Your task to perform on an android device: search for starred emails in the gmail app Image 0: 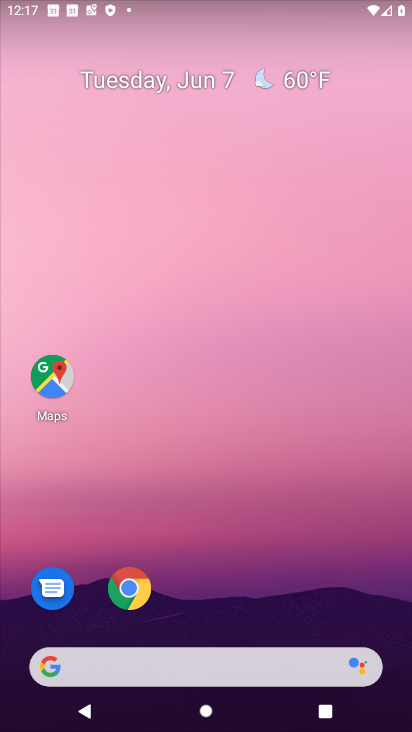
Step 0: drag from (156, 607) to (152, 60)
Your task to perform on an android device: search for starred emails in the gmail app Image 1: 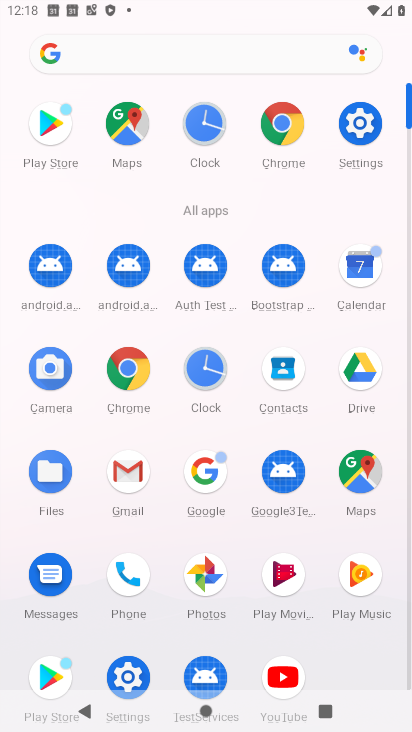
Step 1: click (132, 471)
Your task to perform on an android device: search for starred emails in the gmail app Image 2: 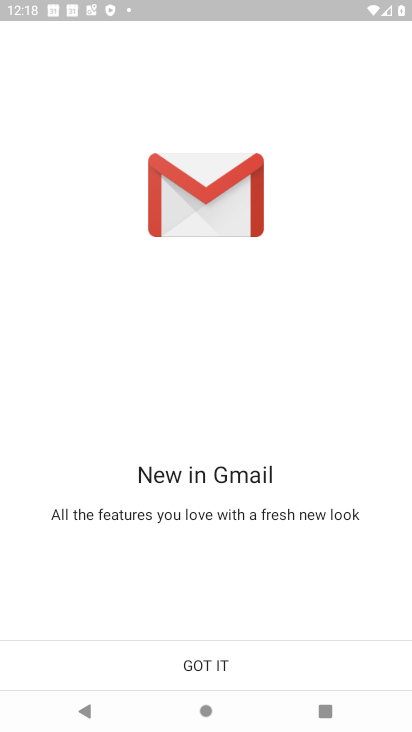
Step 2: click (173, 664)
Your task to perform on an android device: search for starred emails in the gmail app Image 3: 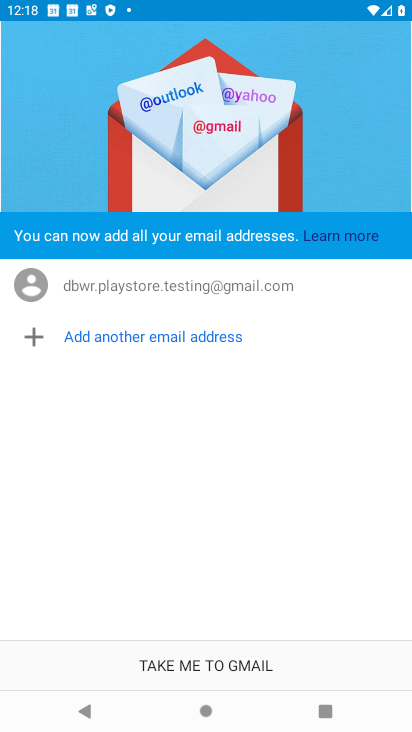
Step 3: click (173, 664)
Your task to perform on an android device: search for starred emails in the gmail app Image 4: 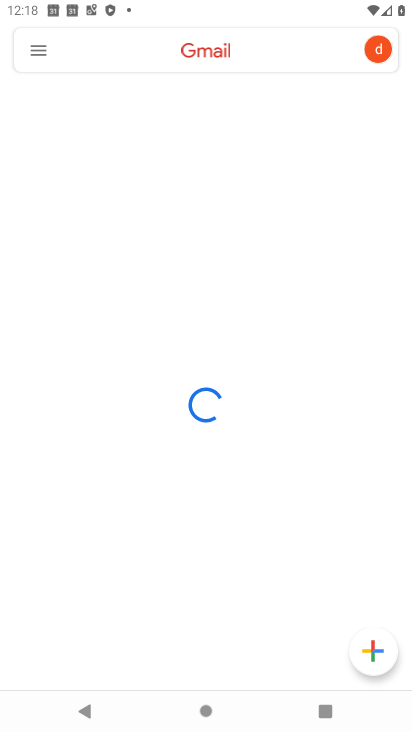
Step 4: click (43, 56)
Your task to perform on an android device: search for starred emails in the gmail app Image 5: 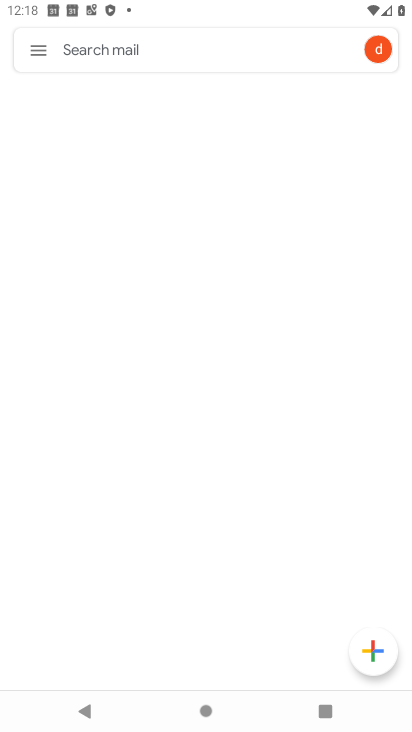
Step 5: drag from (166, 146) to (168, 469)
Your task to perform on an android device: search for starred emails in the gmail app Image 6: 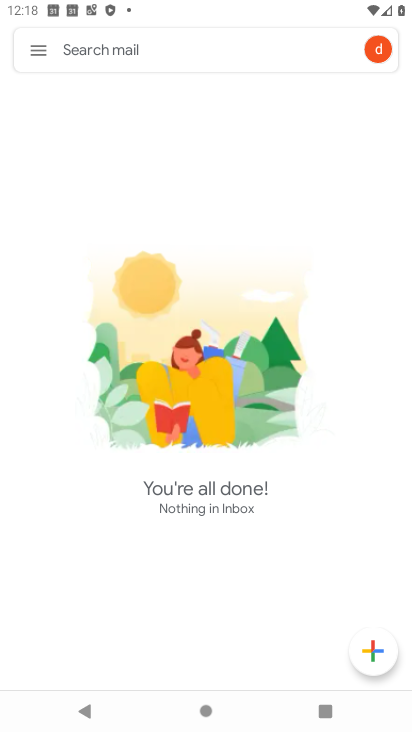
Step 6: click (31, 57)
Your task to perform on an android device: search for starred emails in the gmail app Image 7: 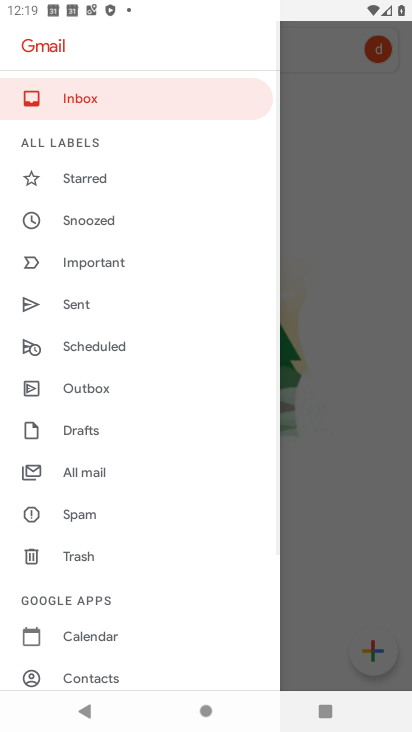
Step 7: click (91, 183)
Your task to perform on an android device: search for starred emails in the gmail app Image 8: 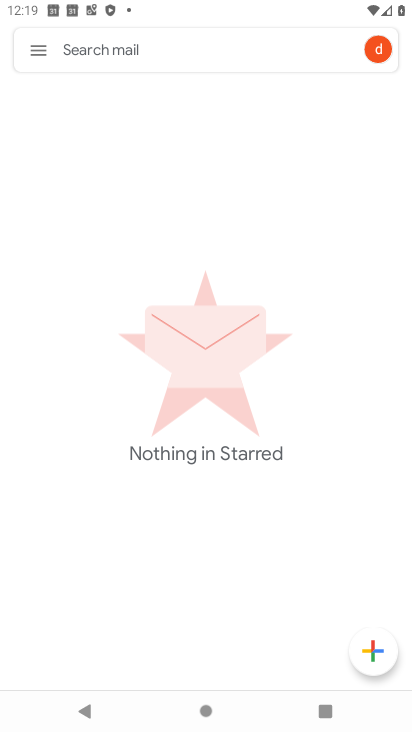
Step 8: task complete